Your task to perform on an android device: What's the latest video from GameSpot Trailers? Image 0: 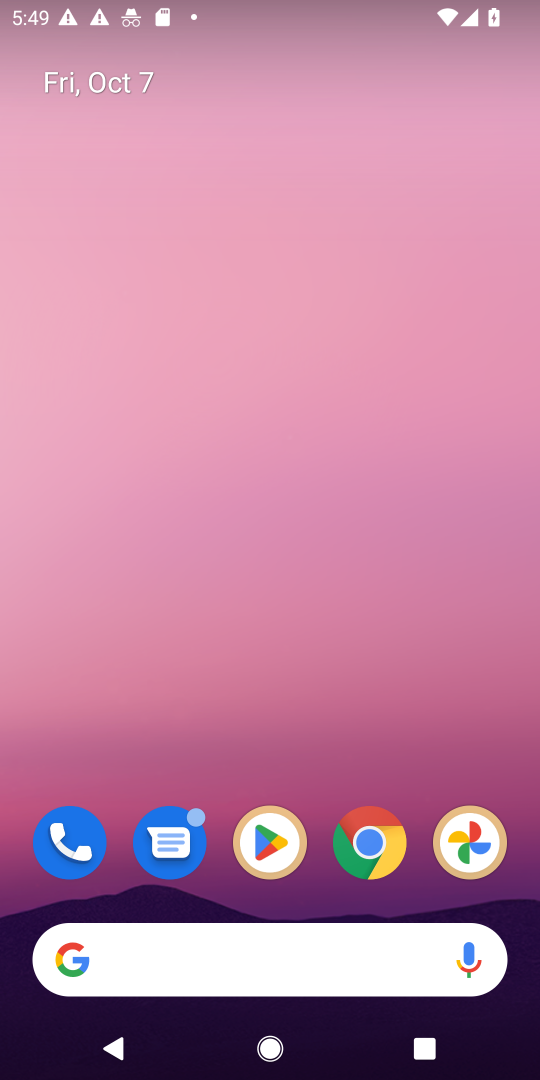
Step 0: drag from (323, 801) to (374, 14)
Your task to perform on an android device: What's the latest video from GameSpot Trailers? Image 1: 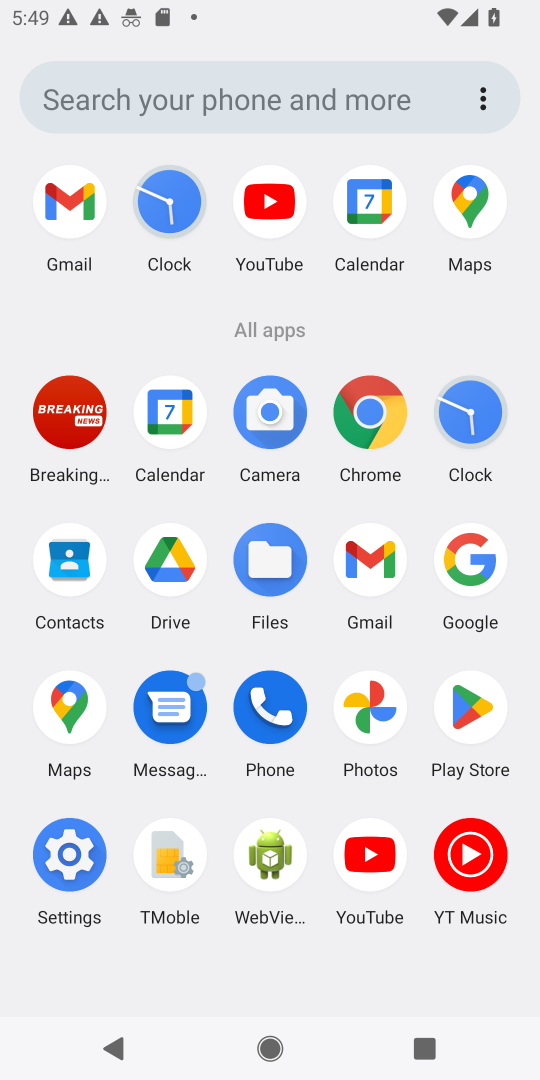
Step 1: click (472, 559)
Your task to perform on an android device: What's the latest video from GameSpot Trailers? Image 2: 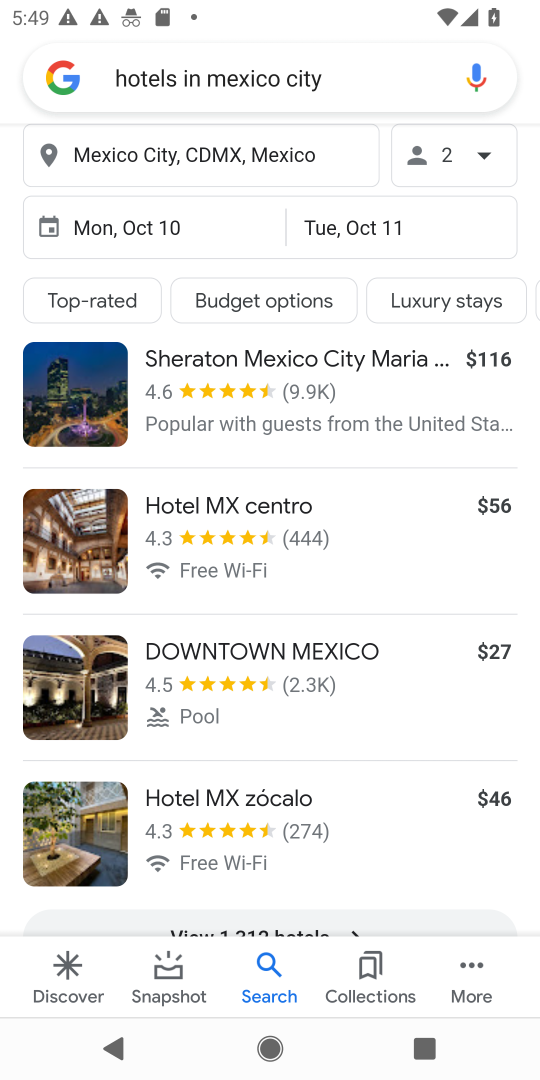
Step 2: click (339, 79)
Your task to perform on an android device: What's the latest video from GameSpot Trailers? Image 3: 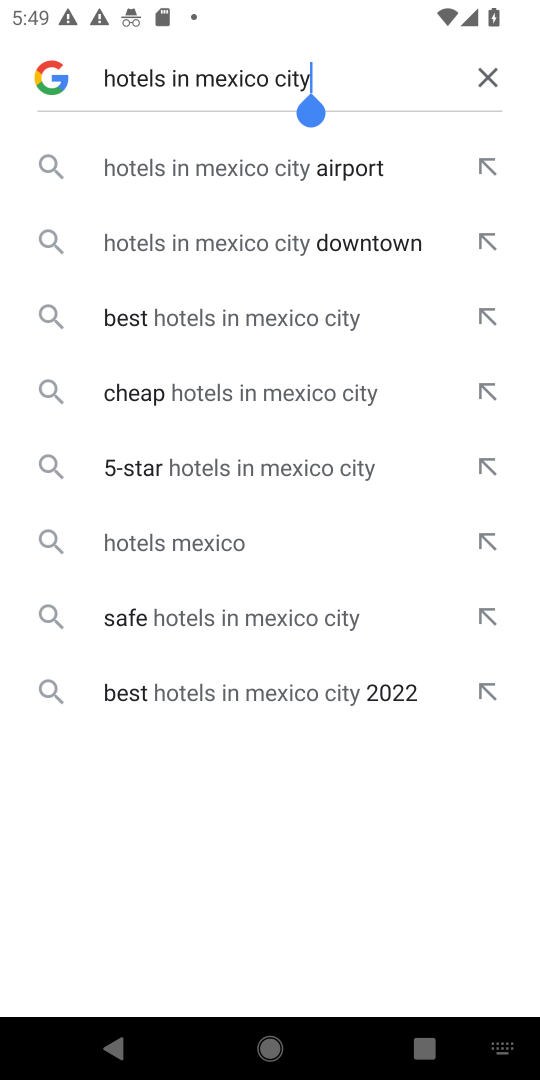
Step 3: click (494, 67)
Your task to perform on an android device: What's the latest video from GameSpot Trailers? Image 4: 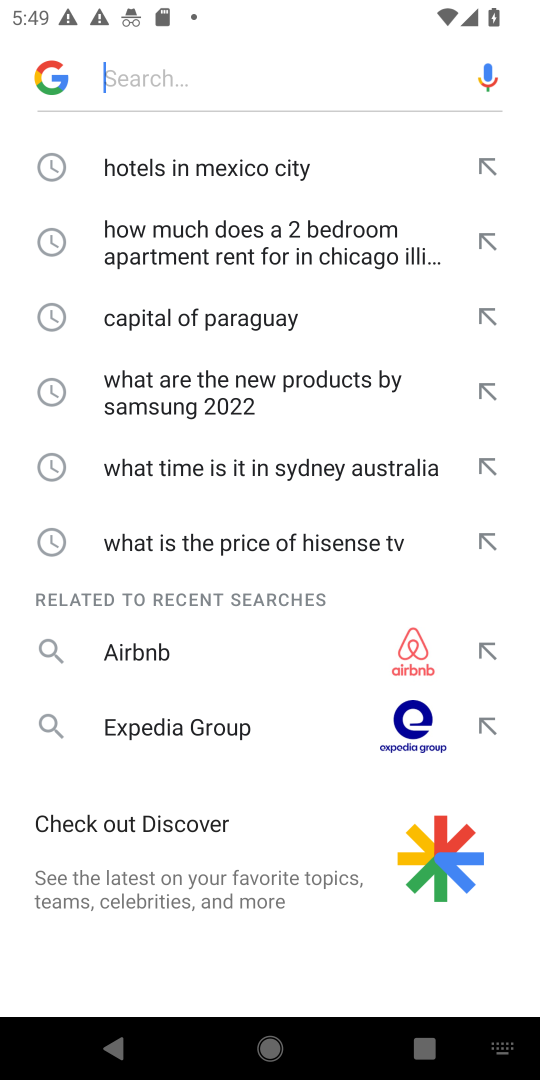
Step 4: click (164, 68)
Your task to perform on an android device: What's the latest video from GameSpot Trailers? Image 5: 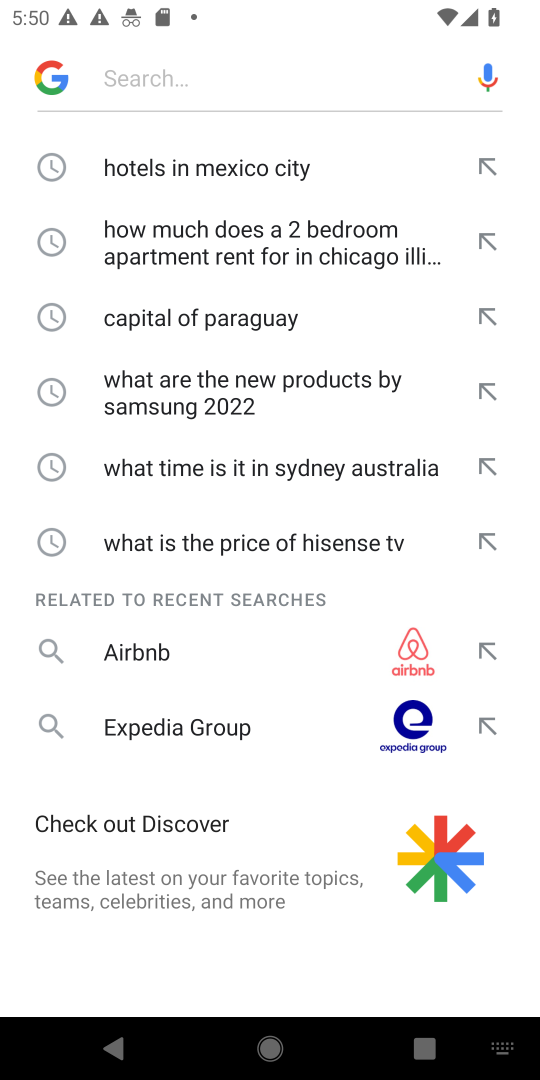
Step 5: click (192, 68)
Your task to perform on an android device: What's the latest video from GameSpot Trailers? Image 6: 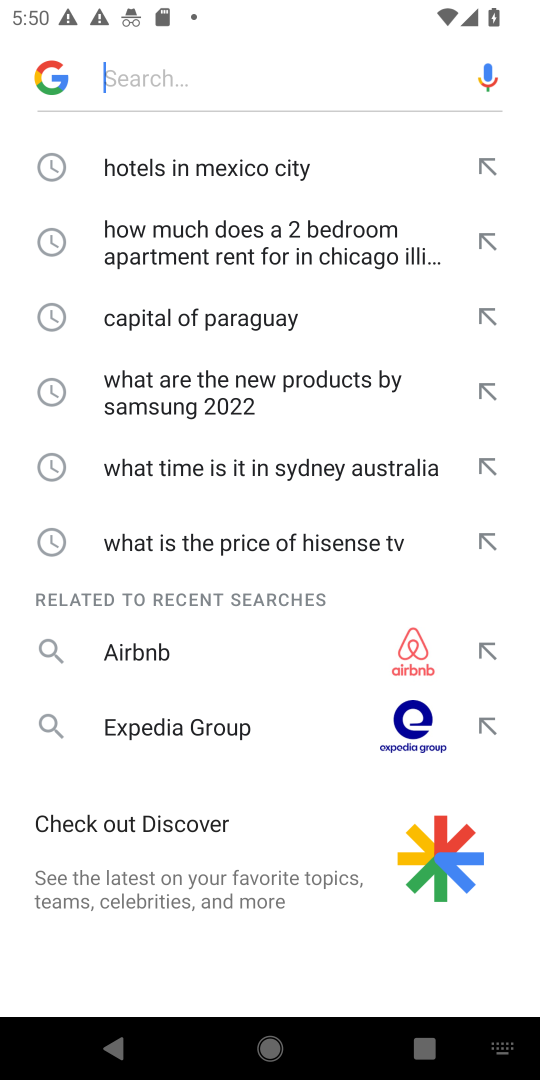
Step 6: type "What's the latest video from GameSpot Trailers"
Your task to perform on an android device: What's the latest video from GameSpot Trailers? Image 7: 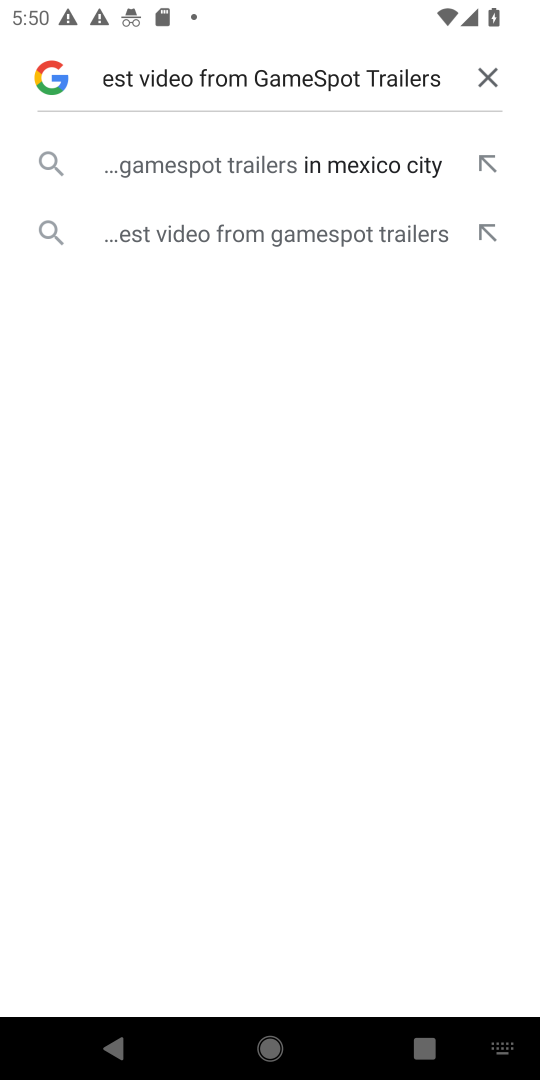
Step 7: click (257, 232)
Your task to perform on an android device: What's the latest video from GameSpot Trailers? Image 8: 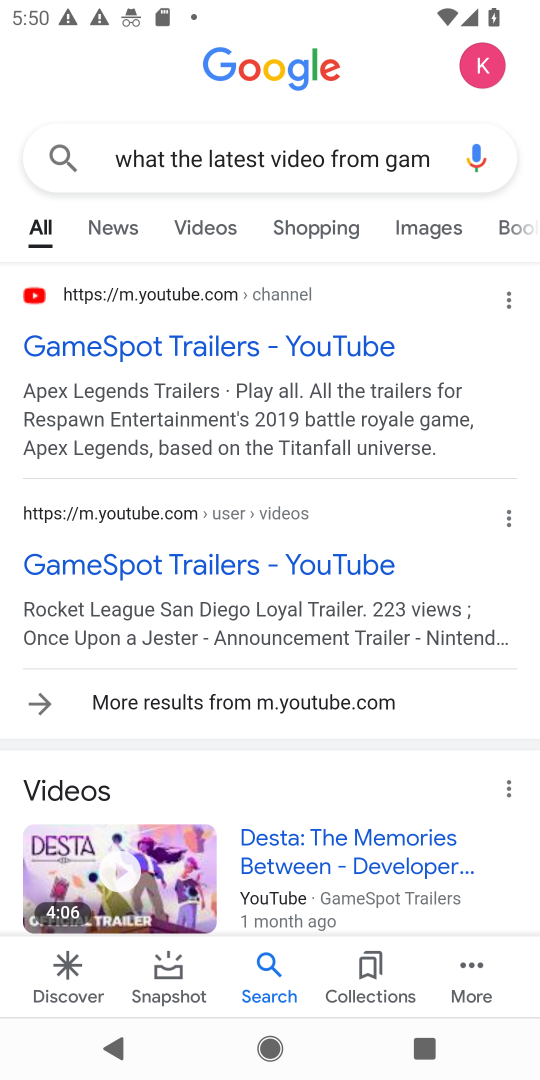
Step 8: task complete